Your task to perform on an android device: toggle show notifications on the lock screen Image 0: 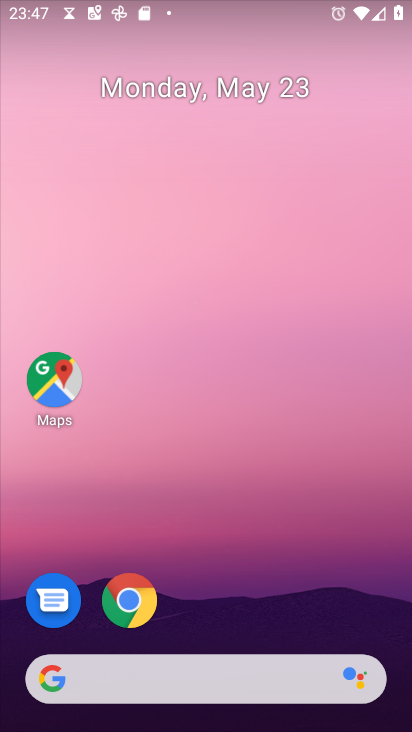
Step 0: drag from (192, 711) to (194, 203)
Your task to perform on an android device: toggle show notifications on the lock screen Image 1: 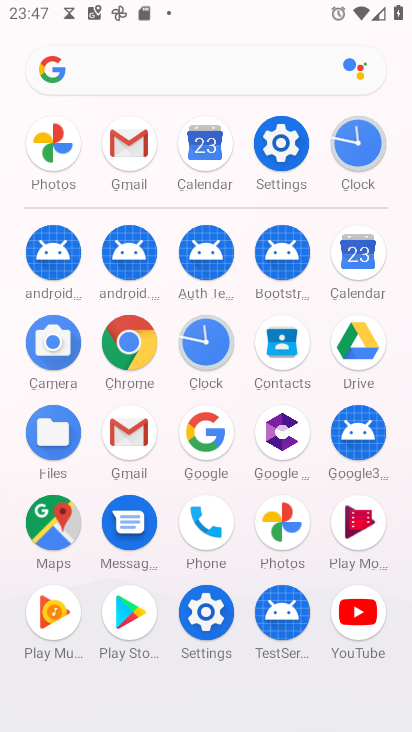
Step 1: click (287, 138)
Your task to perform on an android device: toggle show notifications on the lock screen Image 2: 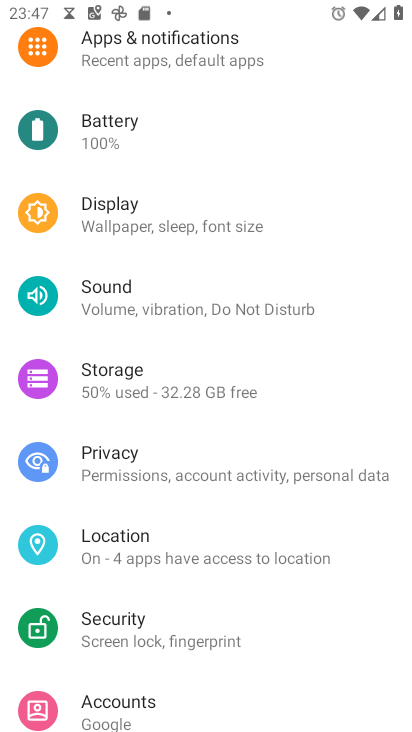
Step 2: click (180, 60)
Your task to perform on an android device: toggle show notifications on the lock screen Image 3: 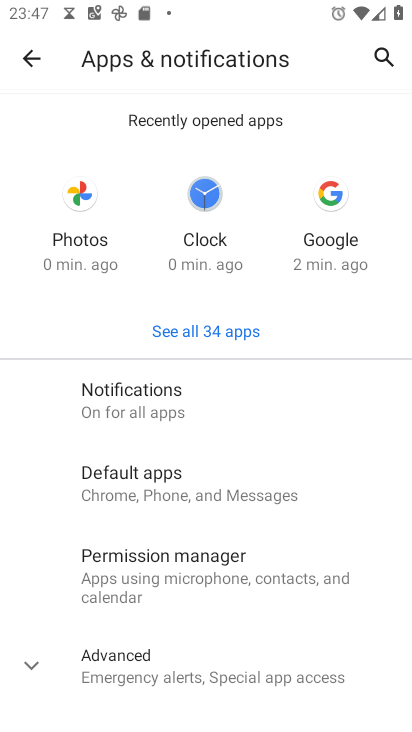
Step 3: click (141, 399)
Your task to perform on an android device: toggle show notifications on the lock screen Image 4: 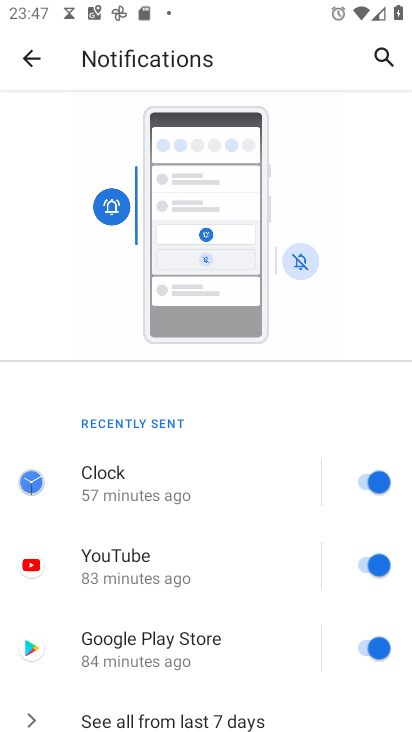
Step 4: drag from (223, 690) to (220, 339)
Your task to perform on an android device: toggle show notifications on the lock screen Image 5: 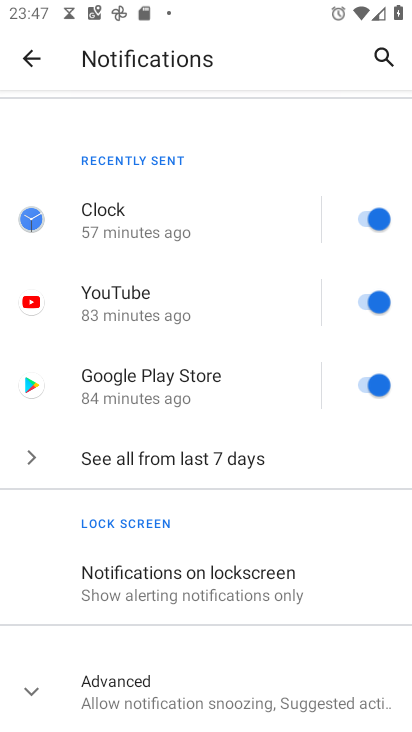
Step 5: click (185, 588)
Your task to perform on an android device: toggle show notifications on the lock screen Image 6: 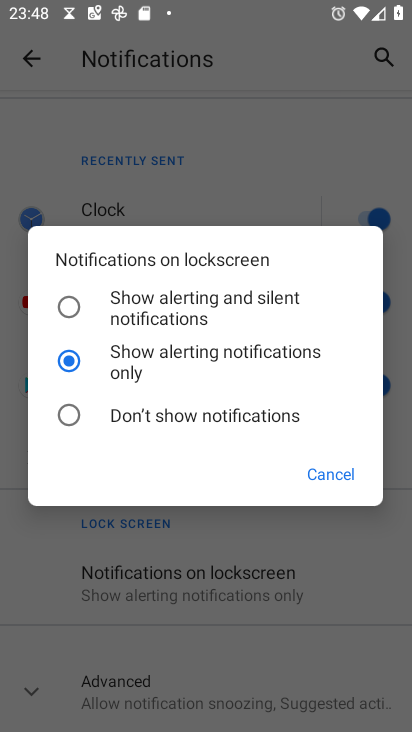
Step 6: click (77, 301)
Your task to perform on an android device: toggle show notifications on the lock screen Image 7: 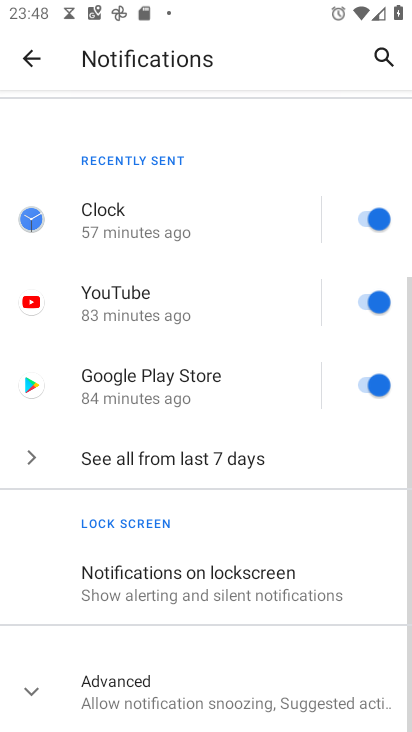
Step 7: task complete